Your task to perform on an android device: check google app version Image 0: 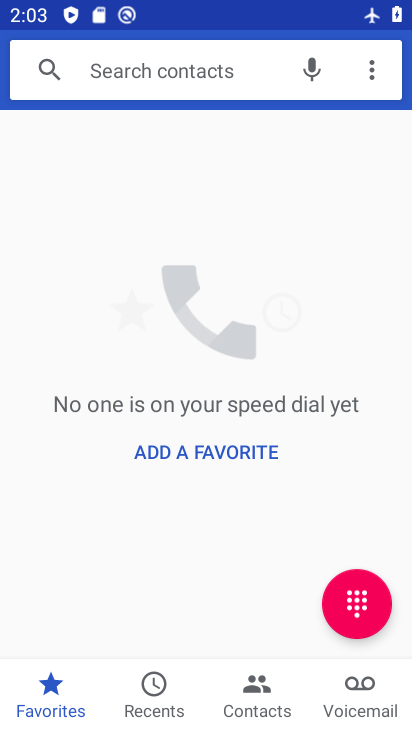
Step 0: press home button
Your task to perform on an android device: check google app version Image 1: 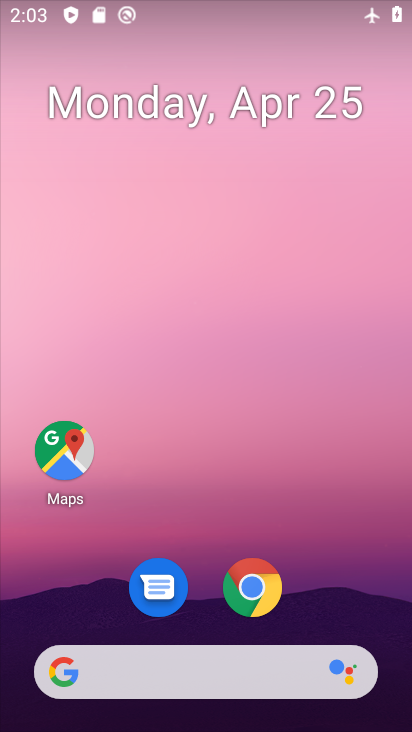
Step 1: drag from (335, 523) to (373, 96)
Your task to perform on an android device: check google app version Image 2: 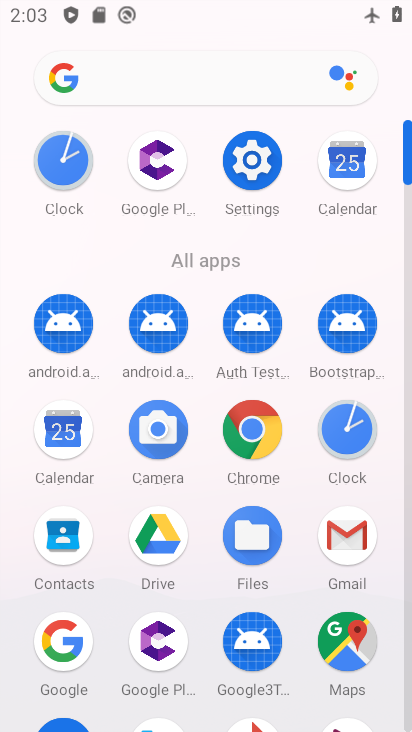
Step 2: click (70, 670)
Your task to perform on an android device: check google app version Image 3: 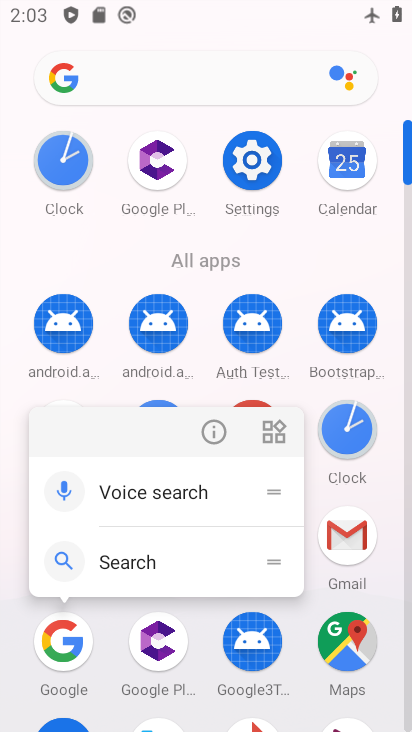
Step 3: click (213, 434)
Your task to perform on an android device: check google app version Image 4: 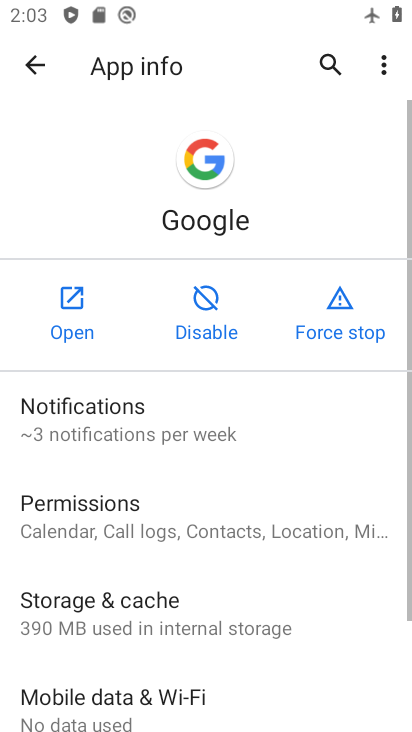
Step 4: drag from (237, 549) to (330, 20)
Your task to perform on an android device: check google app version Image 5: 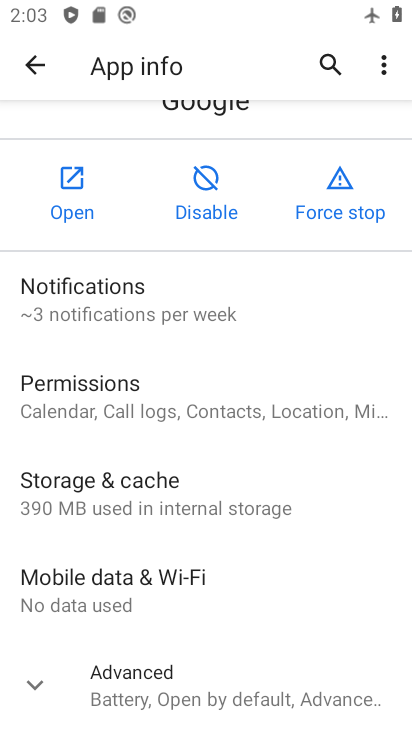
Step 5: click (122, 692)
Your task to perform on an android device: check google app version Image 6: 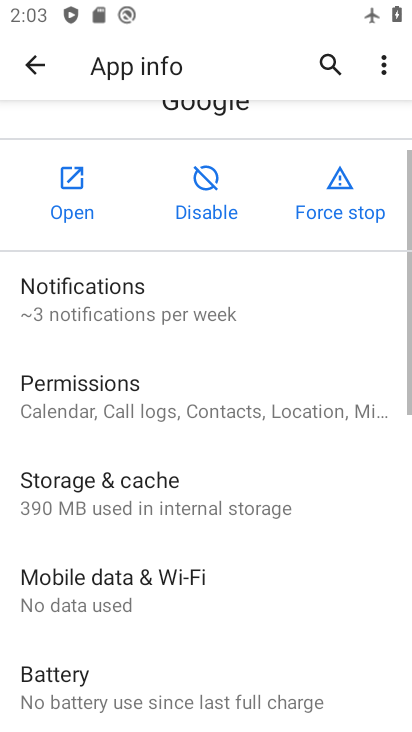
Step 6: task complete